Your task to perform on an android device: toggle wifi Image 0: 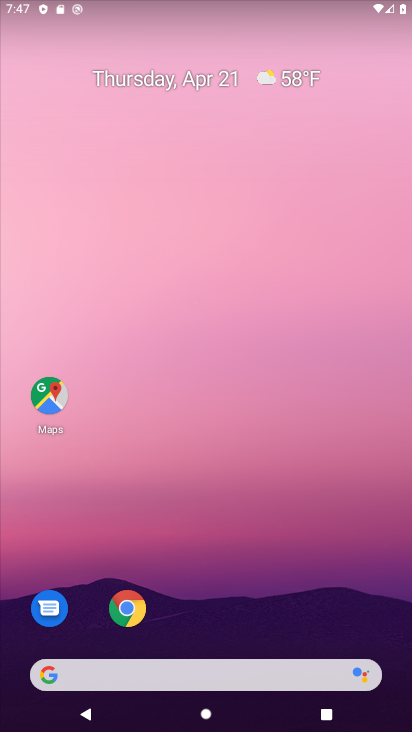
Step 0: drag from (354, 536) to (304, 123)
Your task to perform on an android device: toggle wifi Image 1: 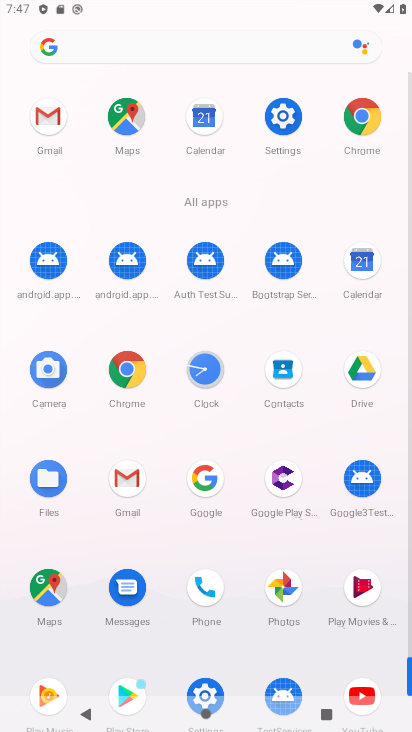
Step 1: click (284, 113)
Your task to perform on an android device: toggle wifi Image 2: 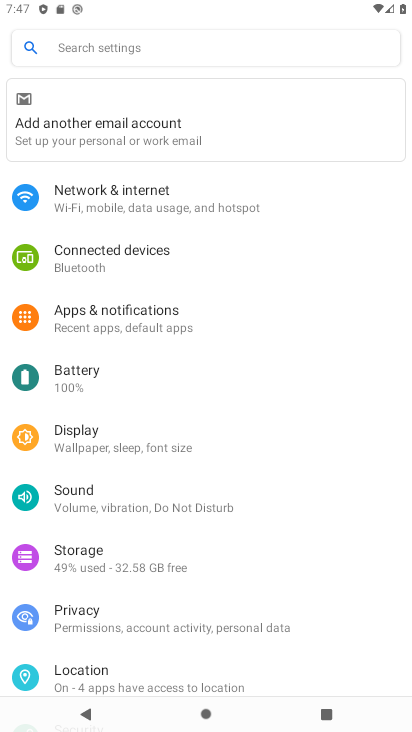
Step 2: click (198, 210)
Your task to perform on an android device: toggle wifi Image 3: 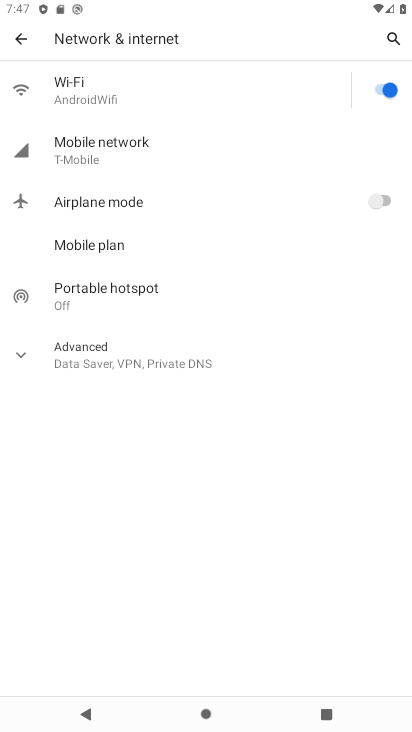
Step 3: click (388, 87)
Your task to perform on an android device: toggle wifi Image 4: 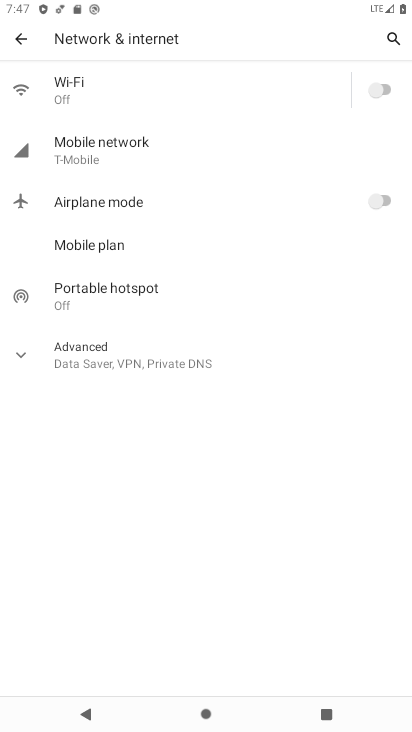
Step 4: task complete